Your task to perform on an android device: make emails show in primary in the gmail app Image 0: 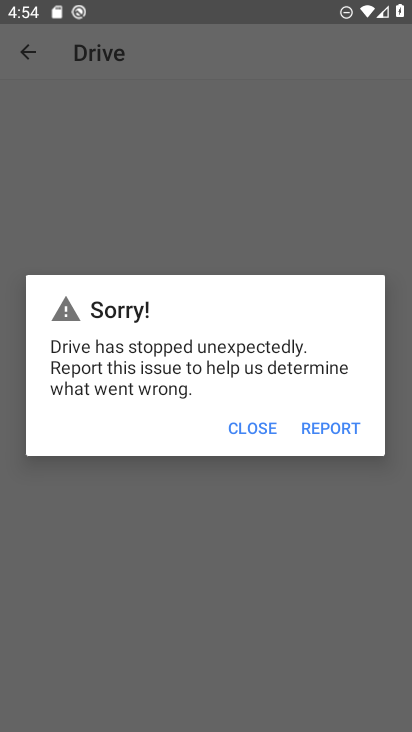
Step 0: press home button
Your task to perform on an android device: make emails show in primary in the gmail app Image 1: 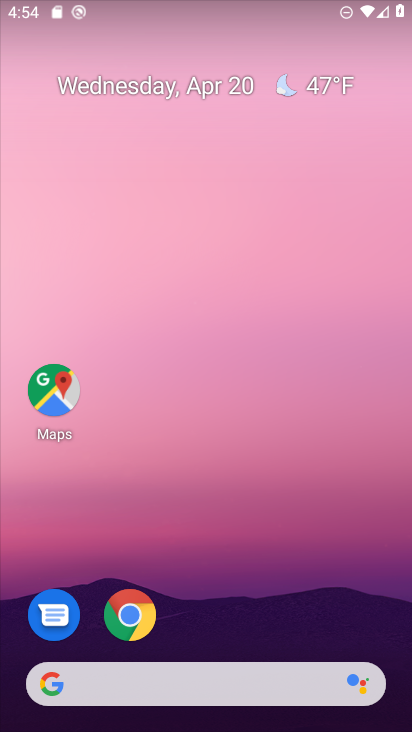
Step 1: drag from (248, 580) to (223, 166)
Your task to perform on an android device: make emails show in primary in the gmail app Image 2: 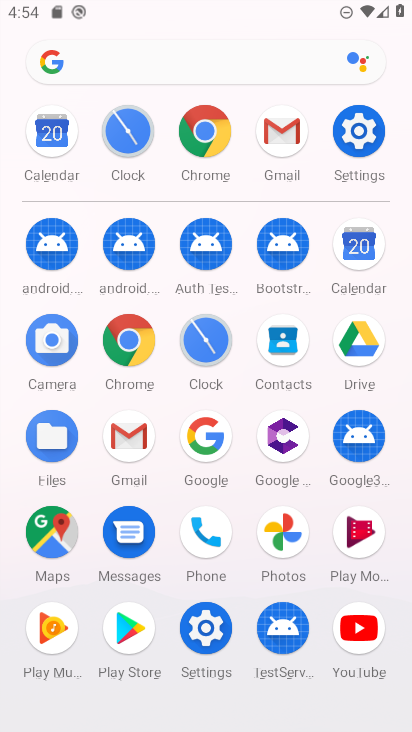
Step 2: click (280, 146)
Your task to perform on an android device: make emails show in primary in the gmail app Image 3: 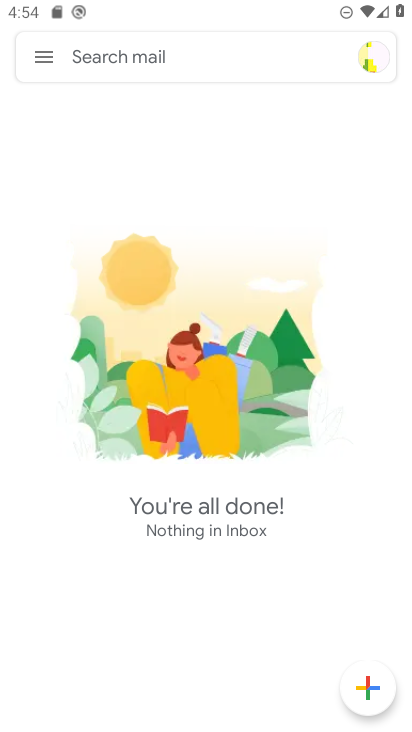
Step 3: click (48, 57)
Your task to perform on an android device: make emails show in primary in the gmail app Image 4: 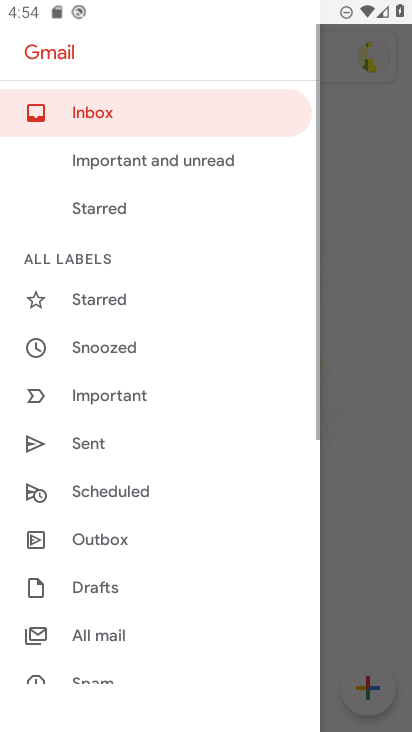
Step 4: drag from (166, 650) to (187, 164)
Your task to perform on an android device: make emails show in primary in the gmail app Image 5: 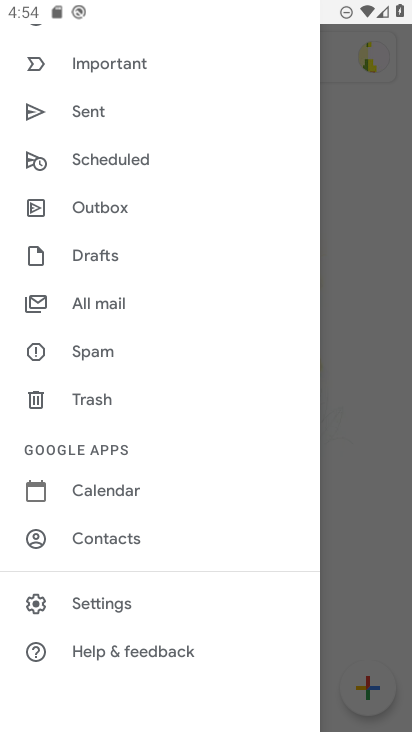
Step 5: click (121, 606)
Your task to perform on an android device: make emails show in primary in the gmail app Image 6: 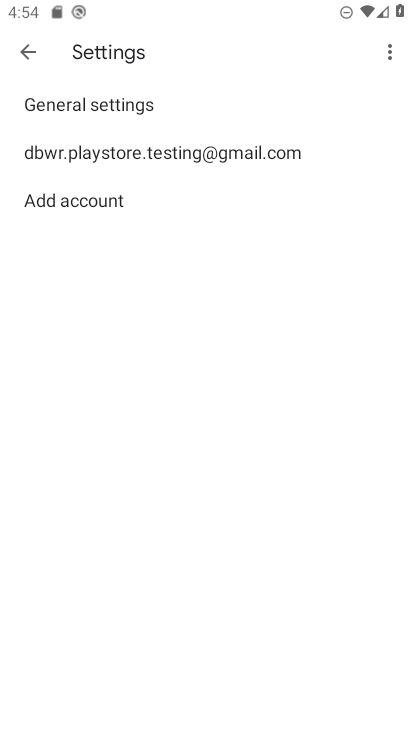
Step 6: click (129, 152)
Your task to perform on an android device: make emails show in primary in the gmail app Image 7: 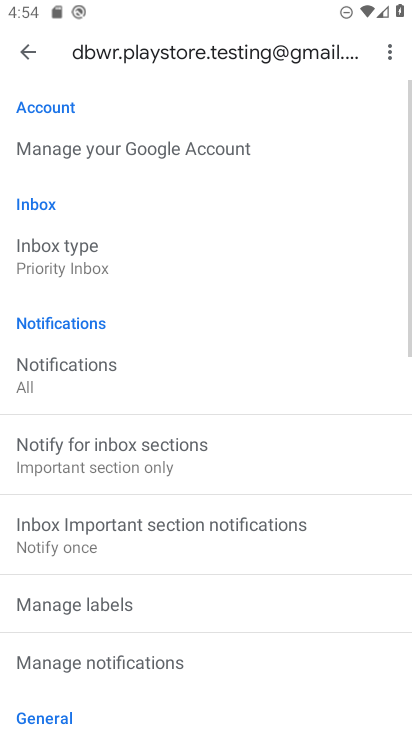
Step 7: click (79, 254)
Your task to perform on an android device: make emails show in primary in the gmail app Image 8: 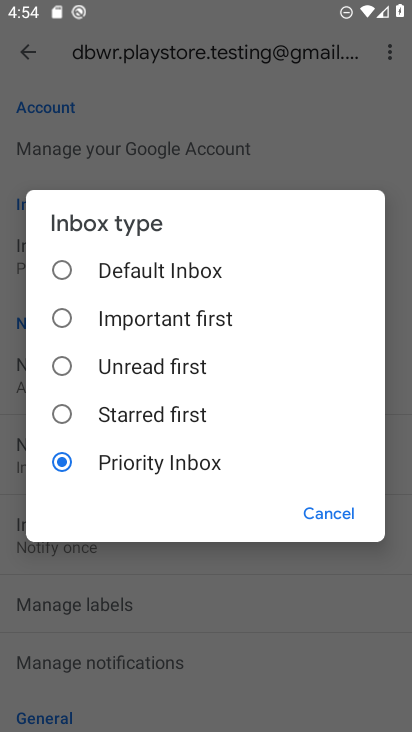
Step 8: click (62, 267)
Your task to perform on an android device: make emails show in primary in the gmail app Image 9: 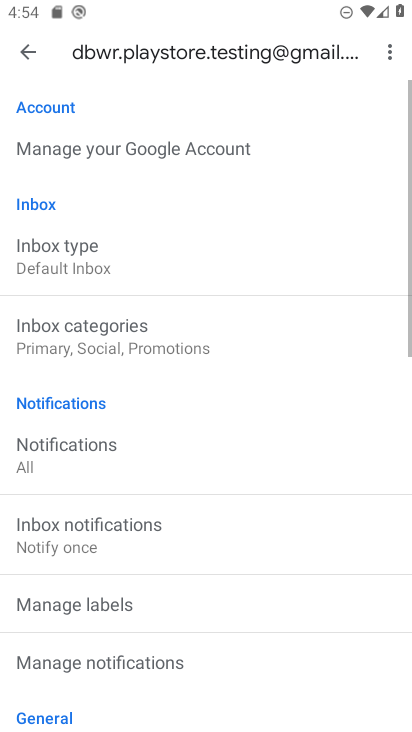
Step 9: click (87, 339)
Your task to perform on an android device: make emails show in primary in the gmail app Image 10: 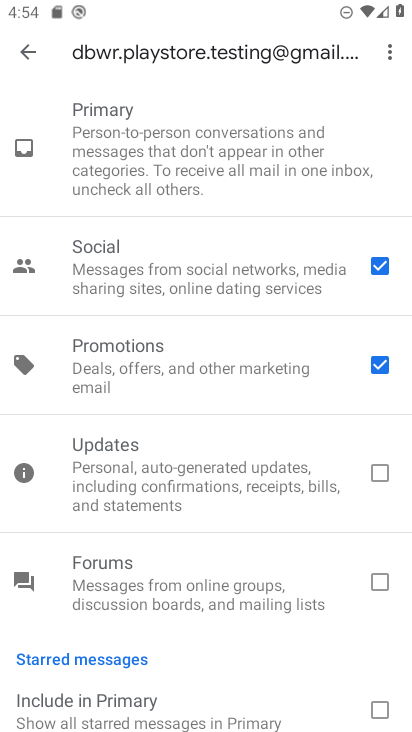
Step 10: click (378, 270)
Your task to perform on an android device: make emails show in primary in the gmail app Image 11: 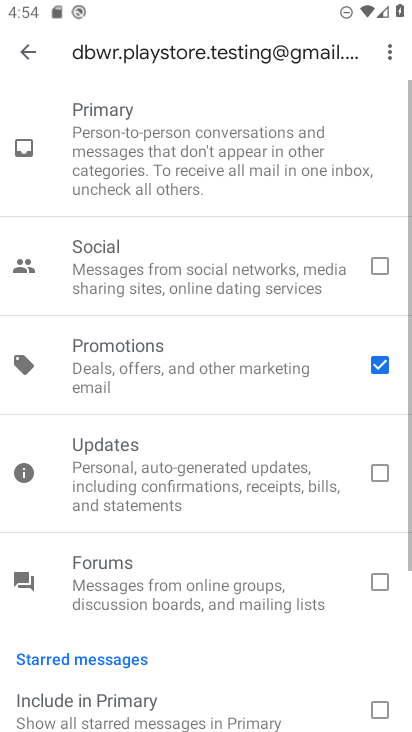
Step 11: click (384, 371)
Your task to perform on an android device: make emails show in primary in the gmail app Image 12: 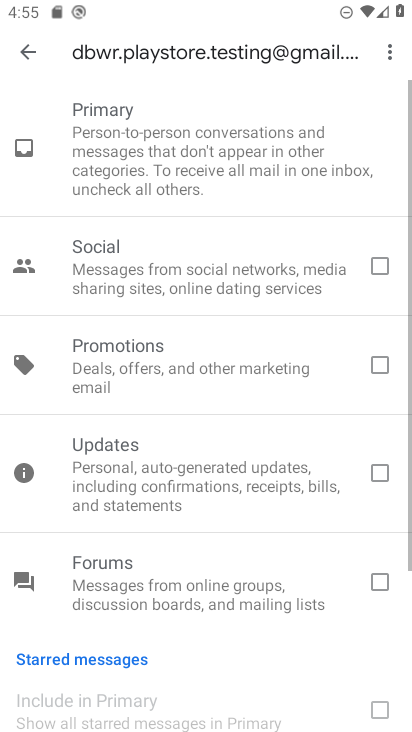
Step 12: task complete